Your task to perform on an android device: turn on priority inbox in the gmail app Image 0: 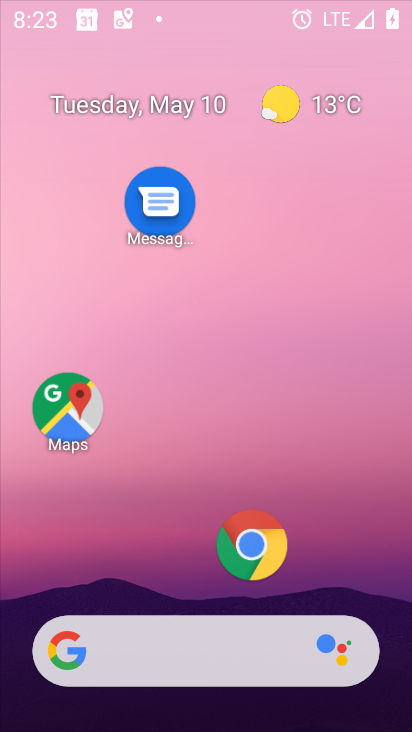
Step 0: press home button
Your task to perform on an android device: turn on priority inbox in the gmail app Image 1: 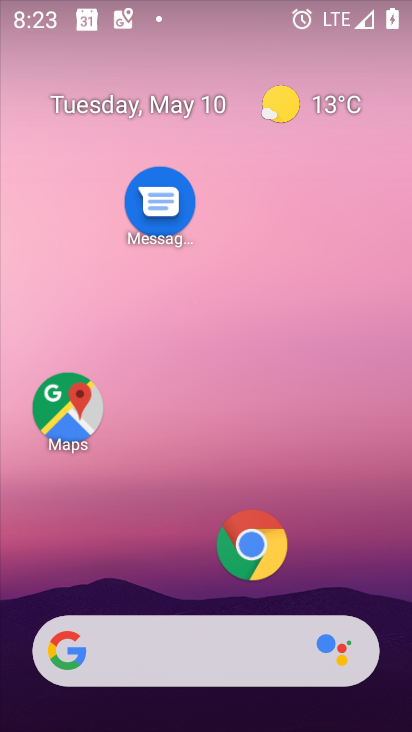
Step 1: drag from (204, 588) to (236, 100)
Your task to perform on an android device: turn on priority inbox in the gmail app Image 2: 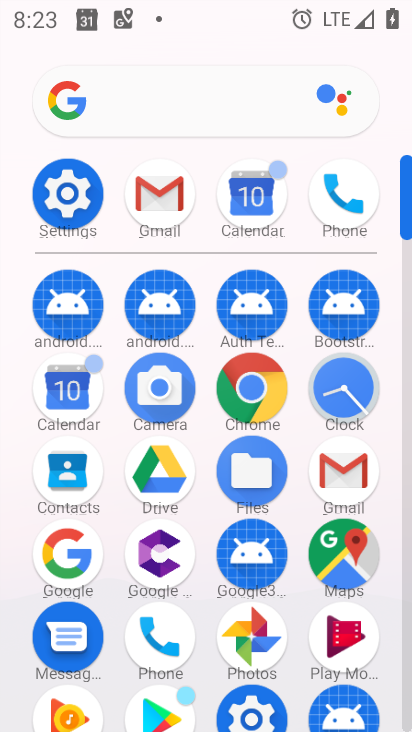
Step 2: click (344, 460)
Your task to perform on an android device: turn on priority inbox in the gmail app Image 3: 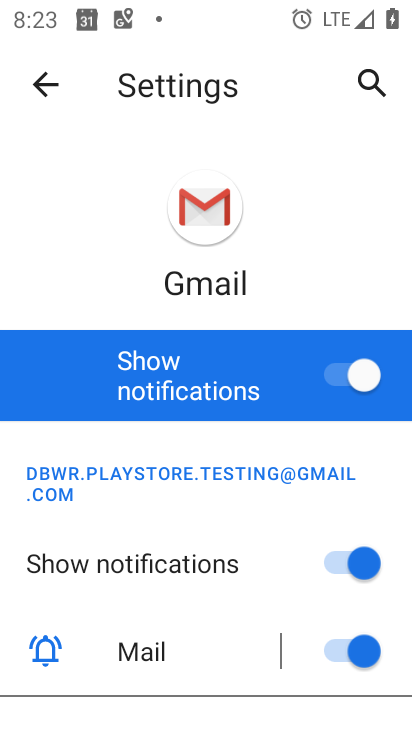
Step 3: click (51, 79)
Your task to perform on an android device: turn on priority inbox in the gmail app Image 4: 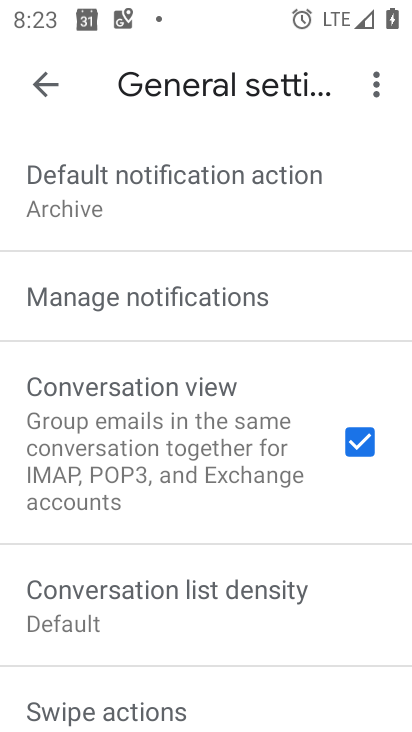
Step 4: click (54, 92)
Your task to perform on an android device: turn on priority inbox in the gmail app Image 5: 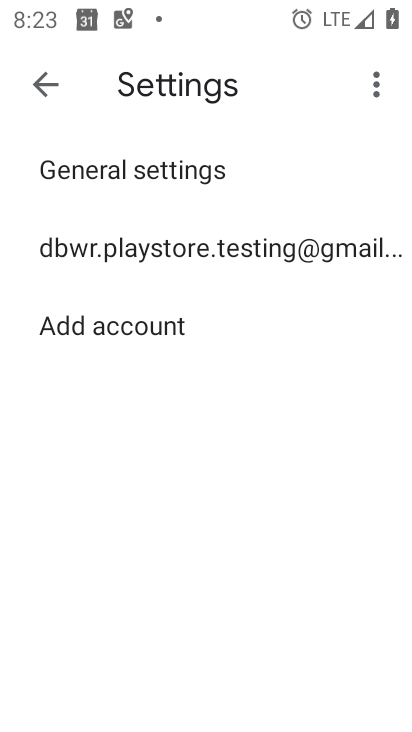
Step 5: click (142, 243)
Your task to perform on an android device: turn on priority inbox in the gmail app Image 6: 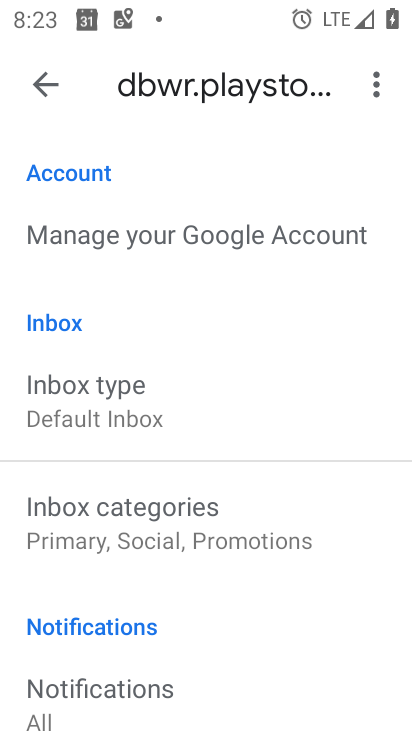
Step 6: click (121, 403)
Your task to perform on an android device: turn on priority inbox in the gmail app Image 7: 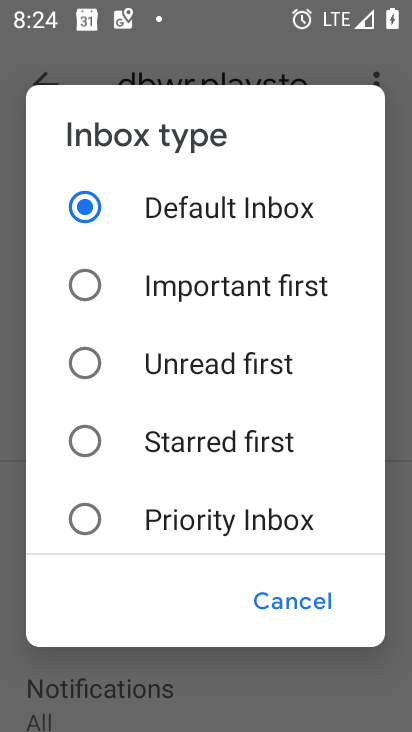
Step 7: click (79, 517)
Your task to perform on an android device: turn on priority inbox in the gmail app Image 8: 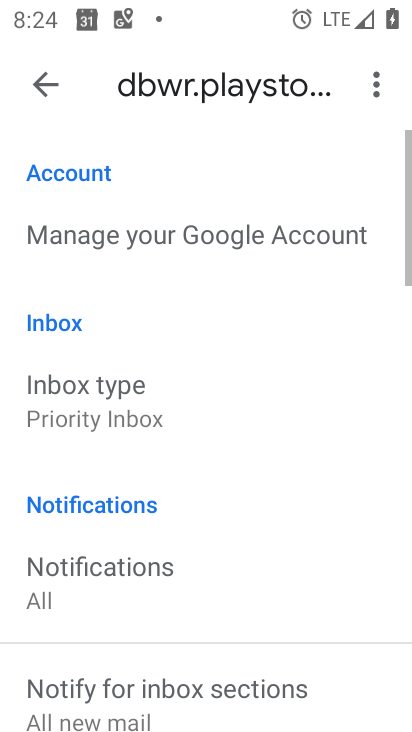
Step 8: task complete